Your task to perform on an android device: Open maps Image 0: 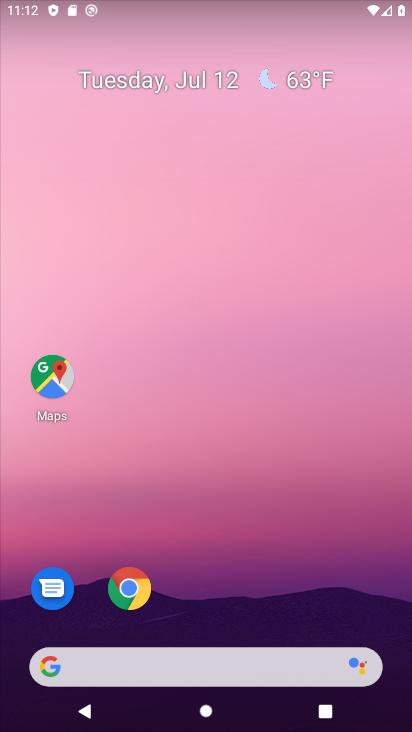
Step 0: click (127, 580)
Your task to perform on an android device: Open maps Image 1: 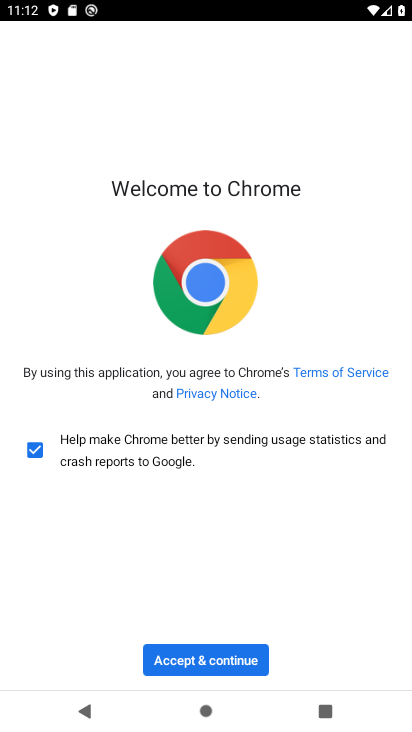
Step 1: click (191, 649)
Your task to perform on an android device: Open maps Image 2: 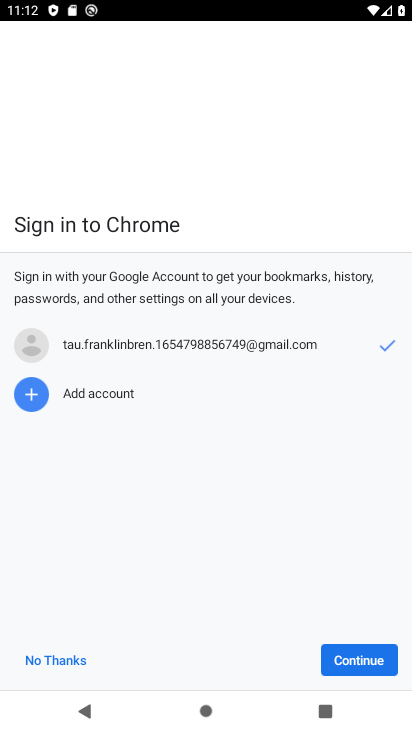
Step 2: click (357, 653)
Your task to perform on an android device: Open maps Image 3: 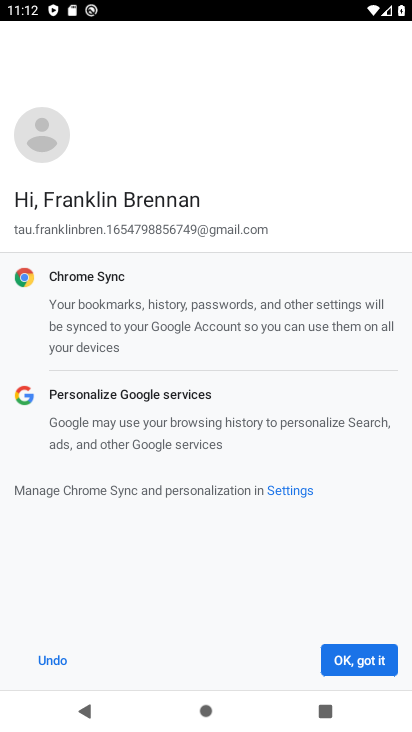
Step 3: click (339, 656)
Your task to perform on an android device: Open maps Image 4: 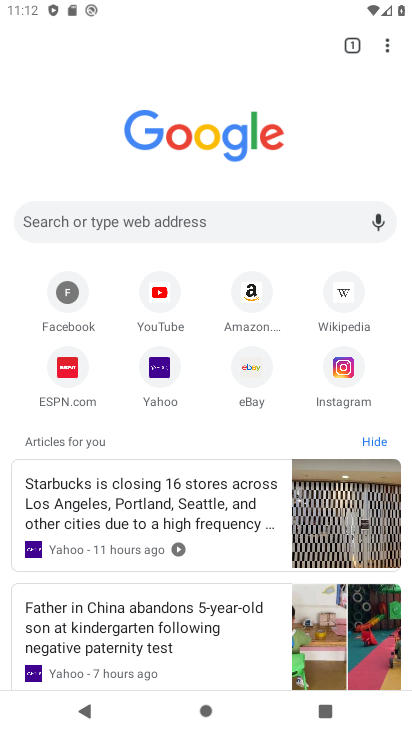
Step 4: press home button
Your task to perform on an android device: Open maps Image 5: 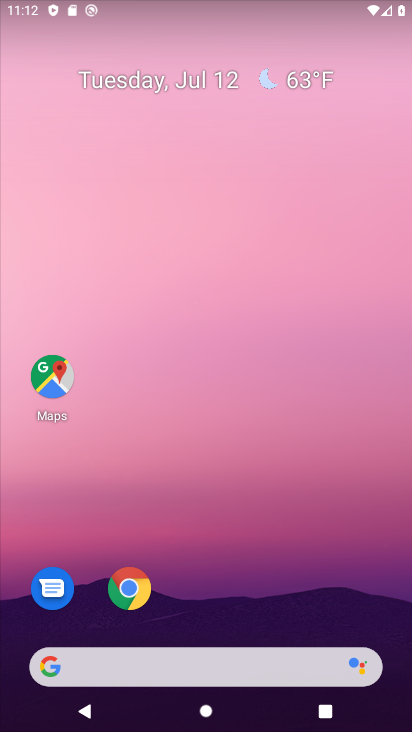
Step 5: click (46, 379)
Your task to perform on an android device: Open maps Image 6: 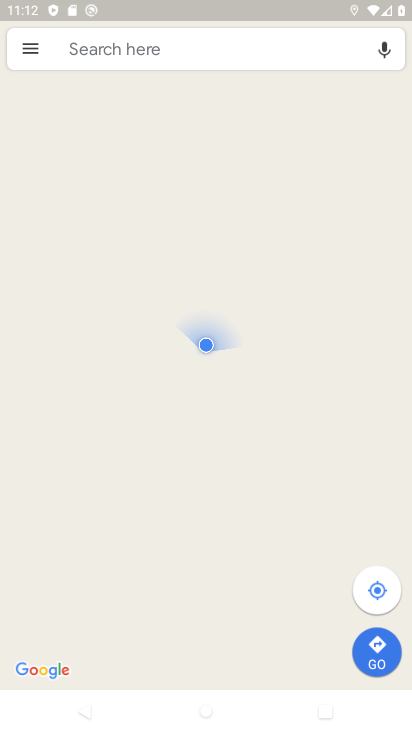
Step 6: task complete